Your task to perform on an android device: Open calendar and show me the first week of next month Image 0: 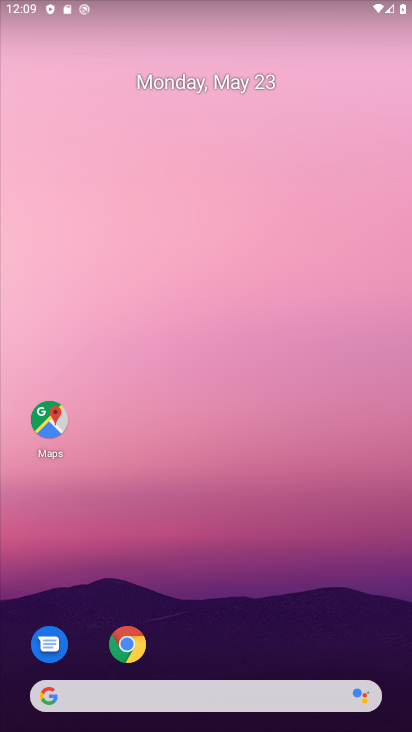
Step 0: click (193, 81)
Your task to perform on an android device: Open calendar and show me the first week of next month Image 1: 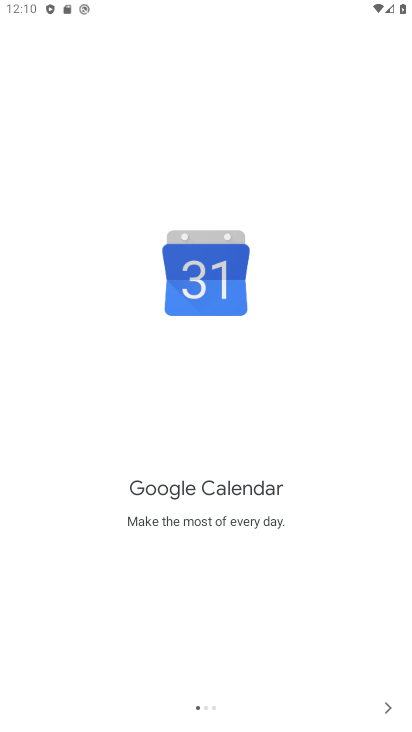
Step 1: click (389, 705)
Your task to perform on an android device: Open calendar and show me the first week of next month Image 2: 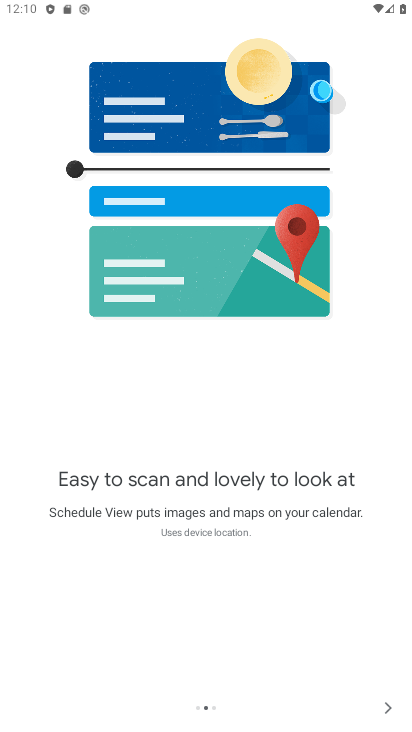
Step 2: click (389, 705)
Your task to perform on an android device: Open calendar and show me the first week of next month Image 3: 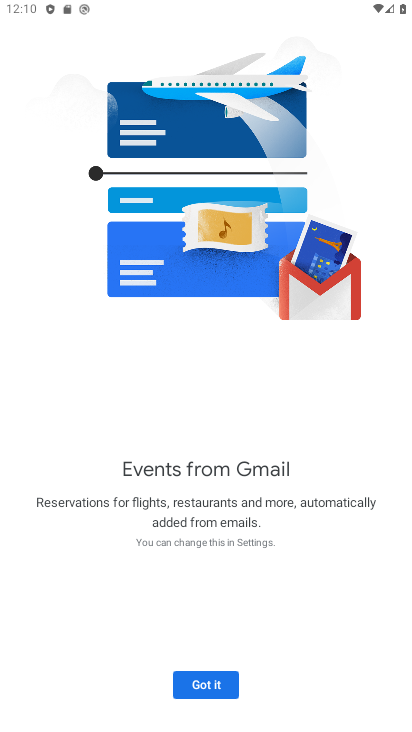
Step 3: click (389, 705)
Your task to perform on an android device: Open calendar and show me the first week of next month Image 4: 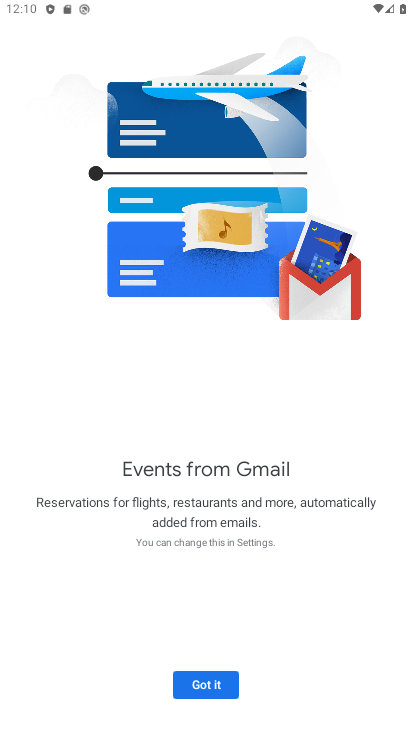
Step 4: click (217, 686)
Your task to perform on an android device: Open calendar and show me the first week of next month Image 5: 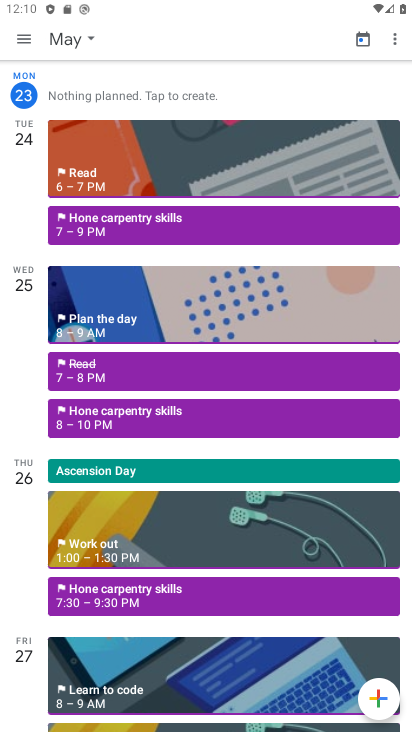
Step 5: click (71, 37)
Your task to perform on an android device: Open calendar and show me the first week of next month Image 6: 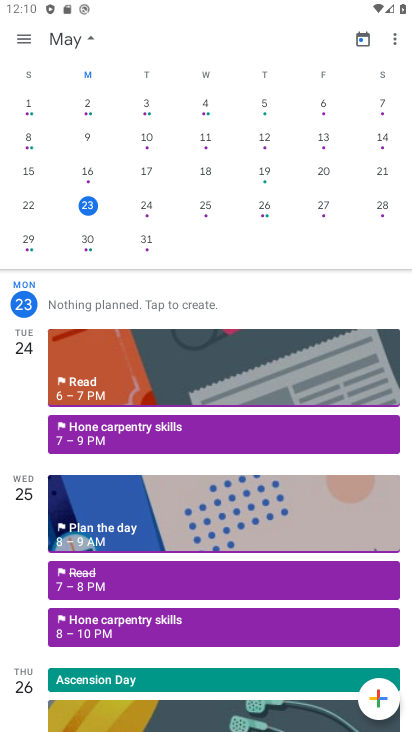
Step 6: drag from (383, 166) to (0, 185)
Your task to perform on an android device: Open calendar and show me the first week of next month Image 7: 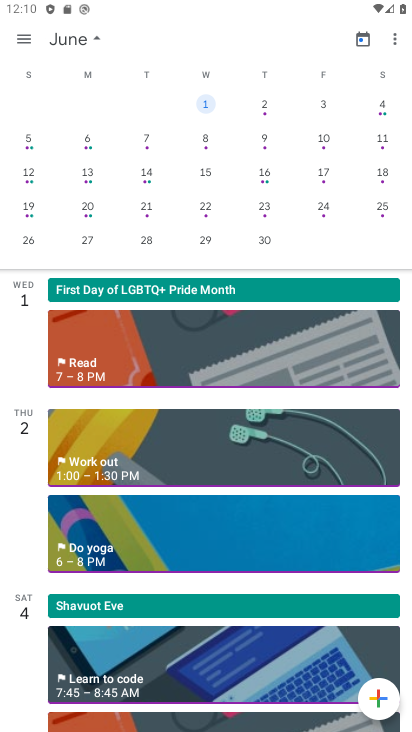
Step 7: click (13, 33)
Your task to perform on an android device: Open calendar and show me the first week of next month Image 8: 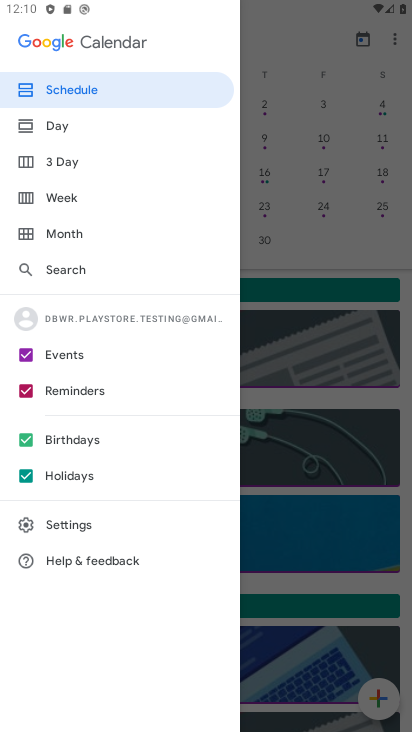
Step 8: click (58, 197)
Your task to perform on an android device: Open calendar and show me the first week of next month Image 9: 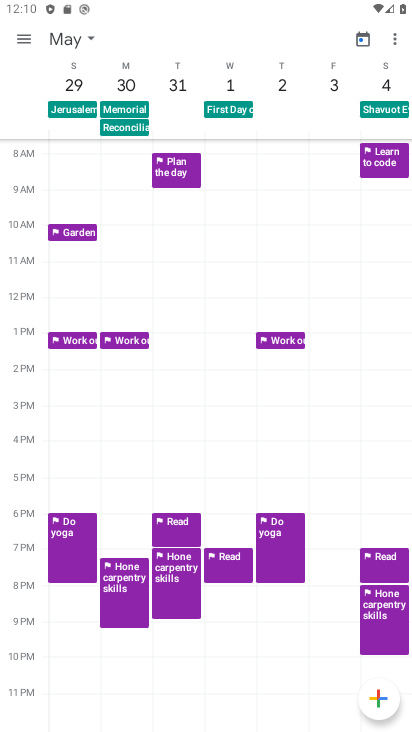
Step 9: click (85, 39)
Your task to perform on an android device: Open calendar and show me the first week of next month Image 10: 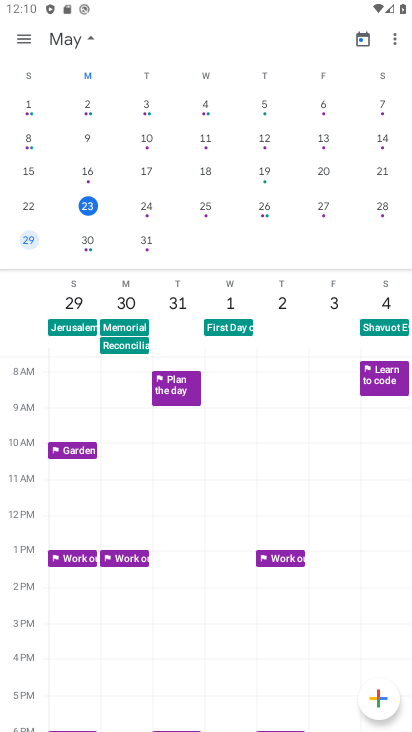
Step 10: drag from (376, 162) to (65, 180)
Your task to perform on an android device: Open calendar and show me the first week of next month Image 11: 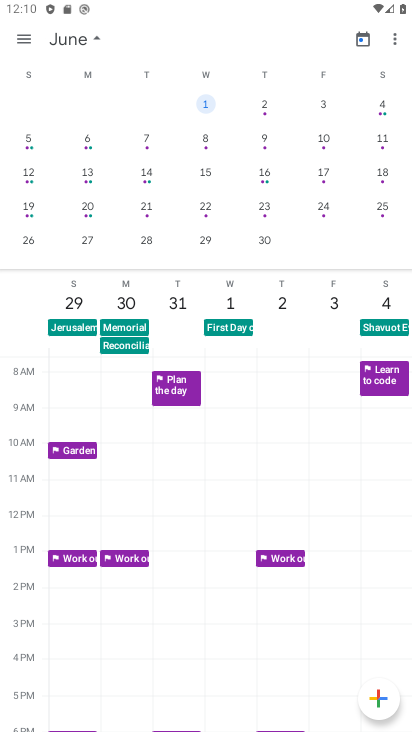
Step 11: click (262, 103)
Your task to perform on an android device: Open calendar and show me the first week of next month Image 12: 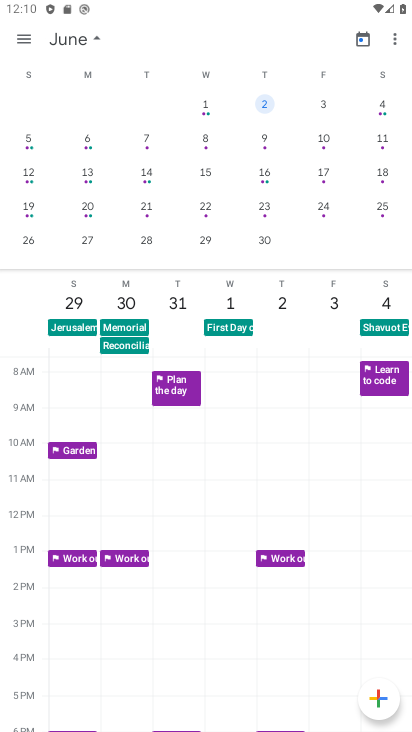
Step 12: task complete